Your task to perform on an android device: Go to CNN.com Image 0: 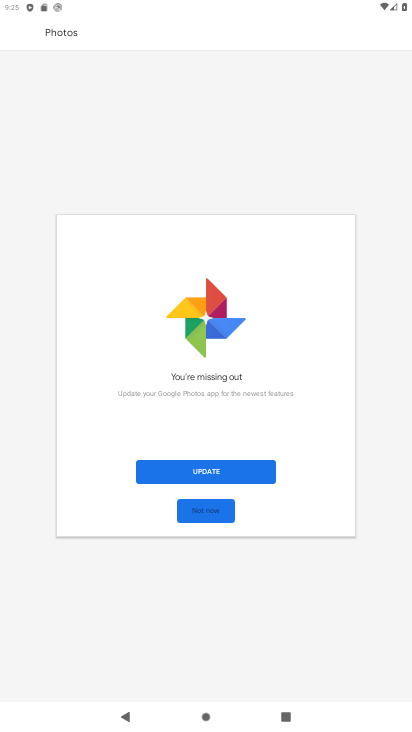
Step 0: press home button
Your task to perform on an android device: Go to CNN.com Image 1: 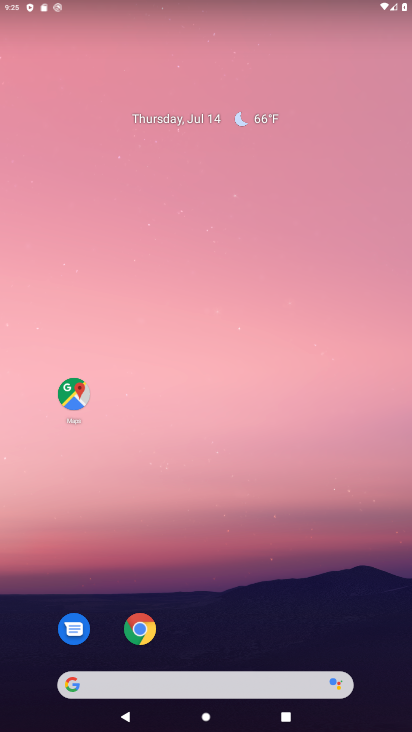
Step 1: click (68, 675)
Your task to perform on an android device: Go to CNN.com Image 2: 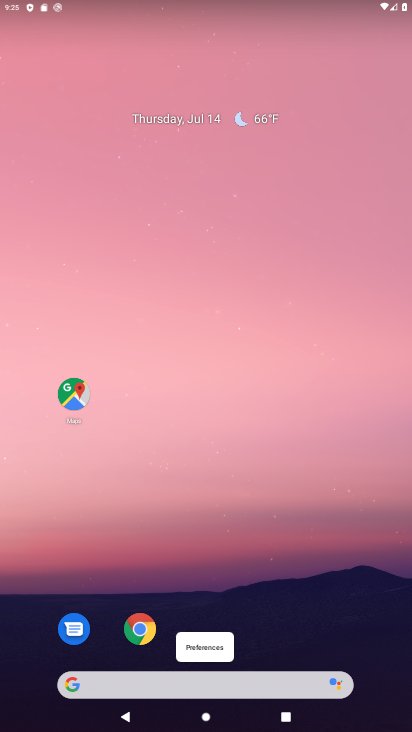
Step 2: click (62, 689)
Your task to perform on an android device: Go to CNN.com Image 3: 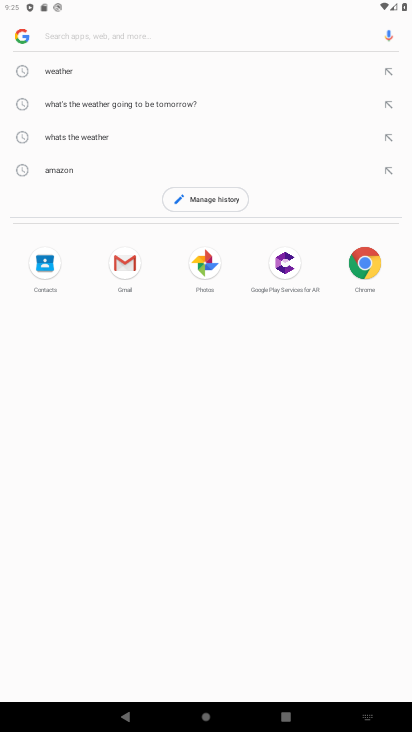
Step 3: type "CNN.com"
Your task to perform on an android device: Go to CNN.com Image 4: 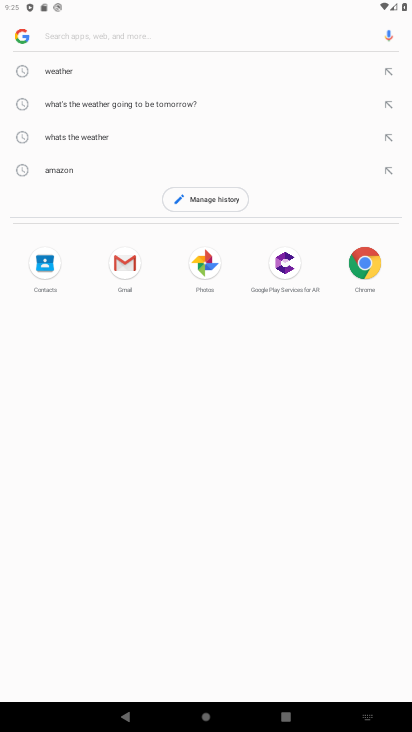
Step 4: click (86, 34)
Your task to perform on an android device: Go to CNN.com Image 5: 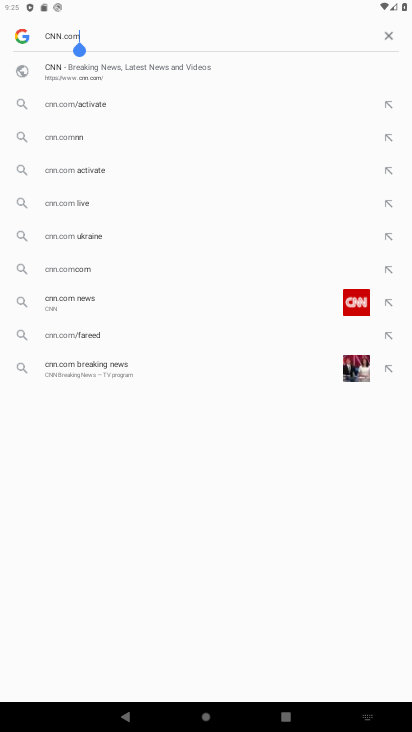
Step 5: press enter
Your task to perform on an android device: Go to CNN.com Image 6: 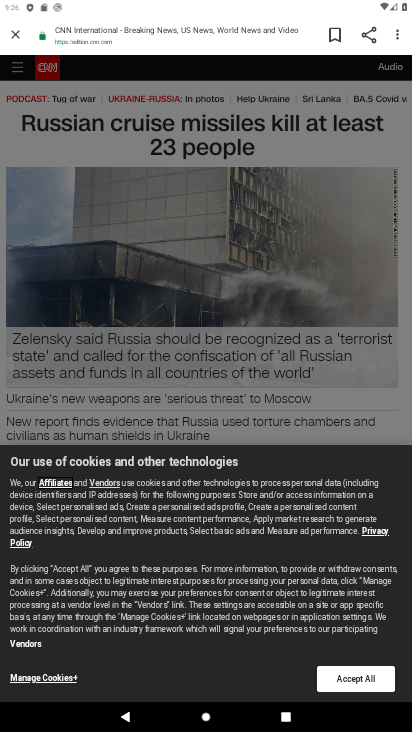
Step 6: task complete